Your task to perform on an android device: Search for pizza restaurants on Maps Image 0: 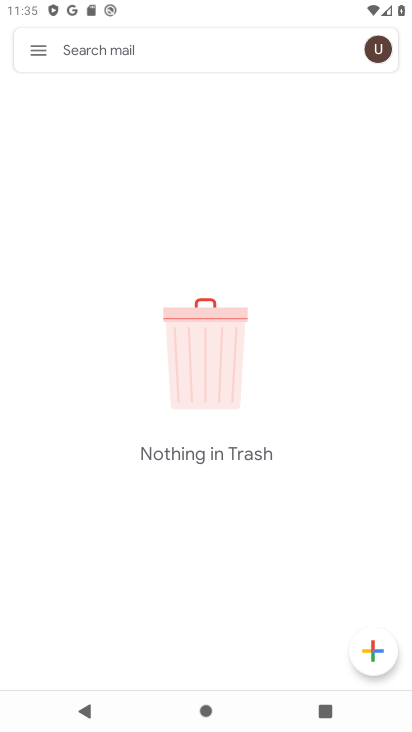
Step 0: press home button
Your task to perform on an android device: Search for pizza restaurants on Maps Image 1: 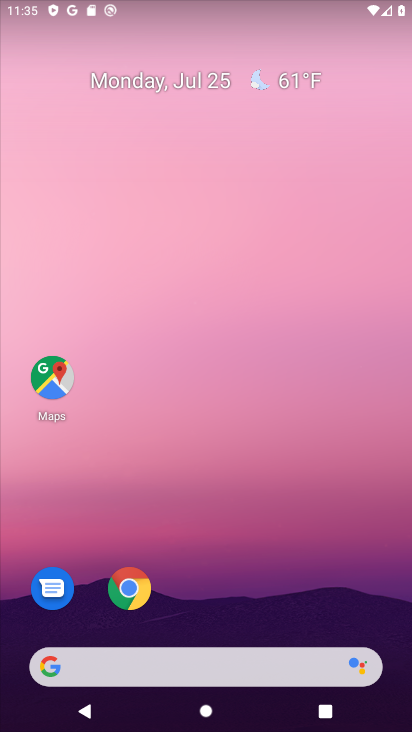
Step 1: click (53, 369)
Your task to perform on an android device: Search for pizza restaurants on Maps Image 2: 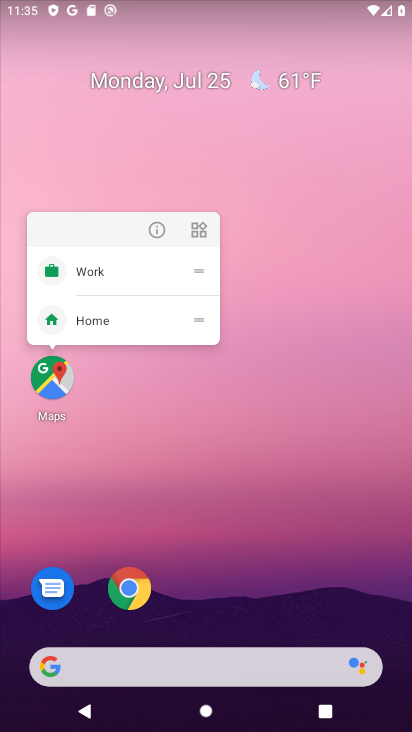
Step 2: click (49, 369)
Your task to perform on an android device: Search for pizza restaurants on Maps Image 3: 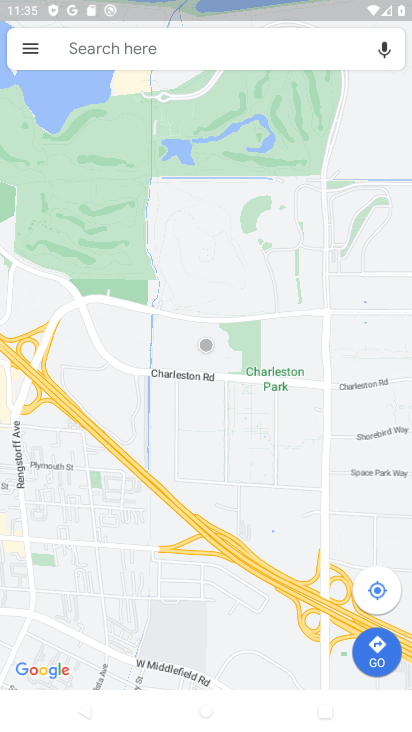
Step 3: click (126, 43)
Your task to perform on an android device: Search for pizza restaurants on Maps Image 4: 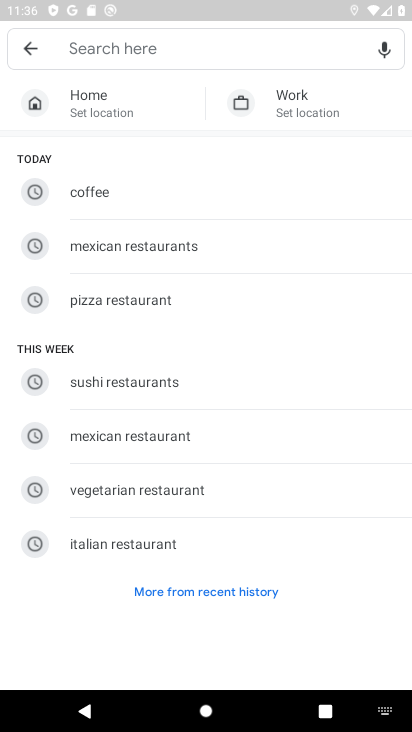
Step 4: type "pizza restaurant"
Your task to perform on an android device: Search for pizza restaurants on Maps Image 5: 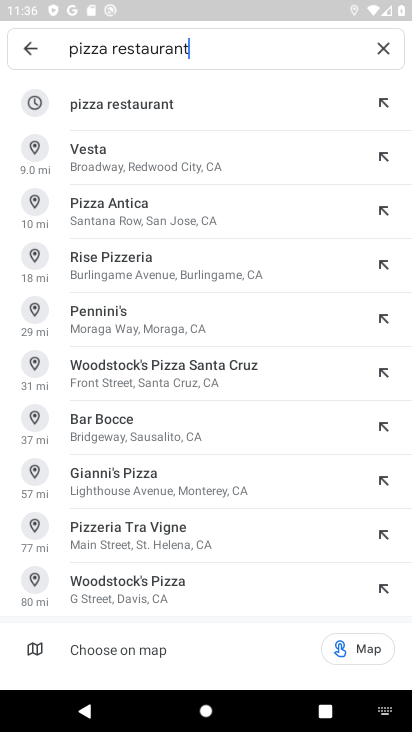
Step 5: click (131, 110)
Your task to perform on an android device: Search for pizza restaurants on Maps Image 6: 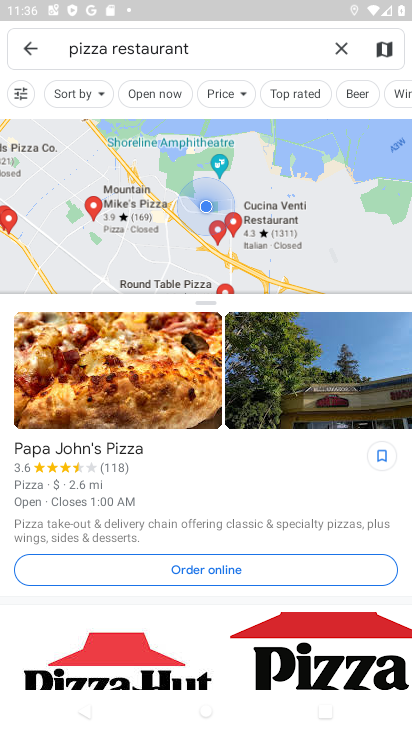
Step 6: task complete